Your task to perform on an android device: turn off priority inbox in the gmail app Image 0: 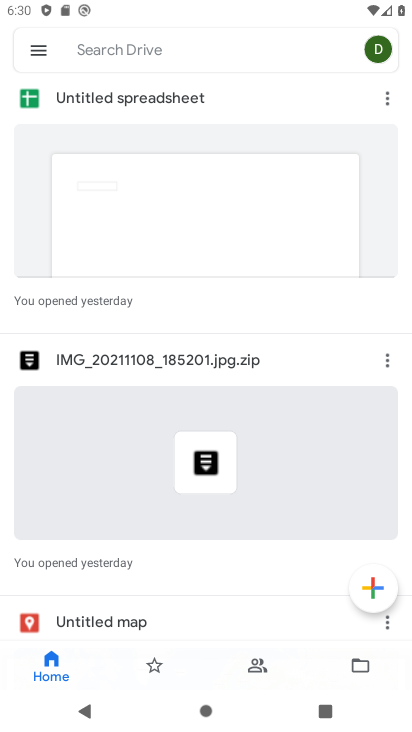
Step 0: press home button
Your task to perform on an android device: turn off priority inbox in the gmail app Image 1: 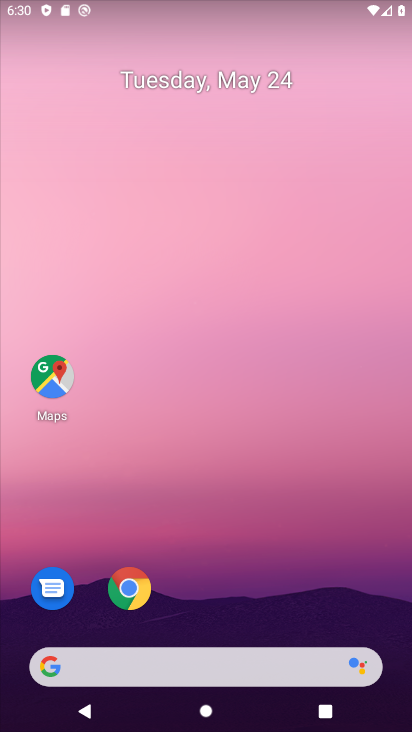
Step 1: drag from (264, 683) to (341, 38)
Your task to perform on an android device: turn off priority inbox in the gmail app Image 2: 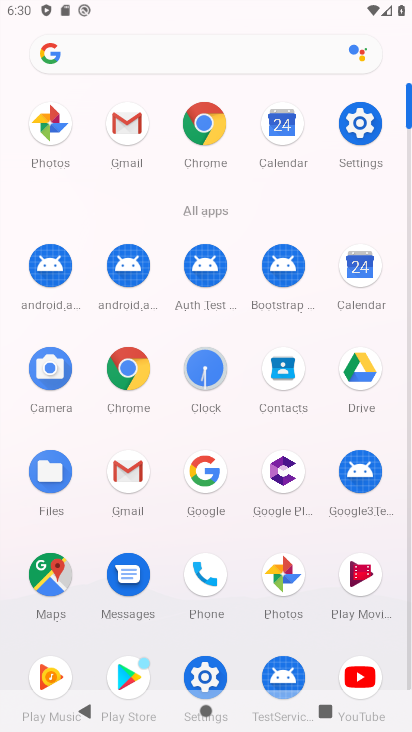
Step 2: click (126, 473)
Your task to perform on an android device: turn off priority inbox in the gmail app Image 3: 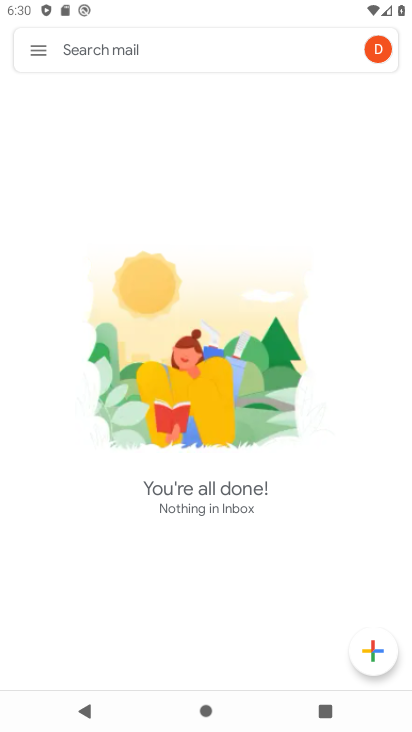
Step 3: click (23, 47)
Your task to perform on an android device: turn off priority inbox in the gmail app Image 4: 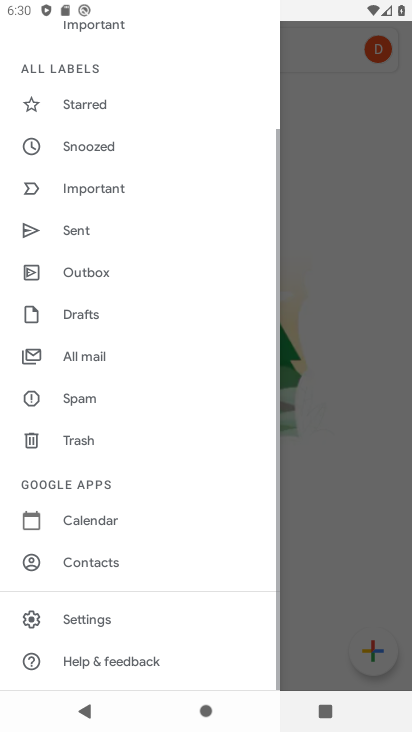
Step 4: click (90, 626)
Your task to perform on an android device: turn off priority inbox in the gmail app Image 5: 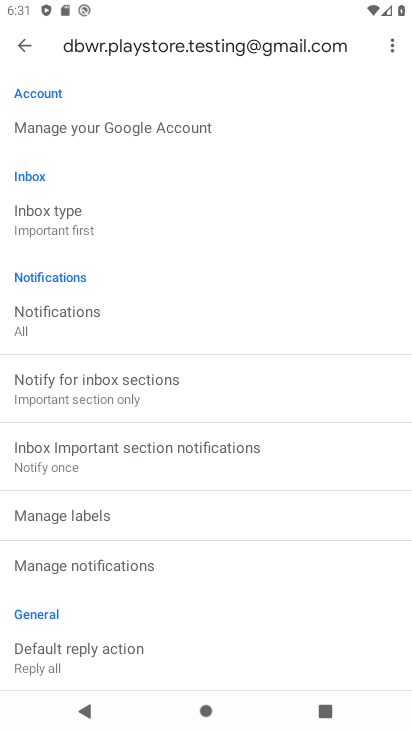
Step 5: click (64, 221)
Your task to perform on an android device: turn off priority inbox in the gmail app Image 6: 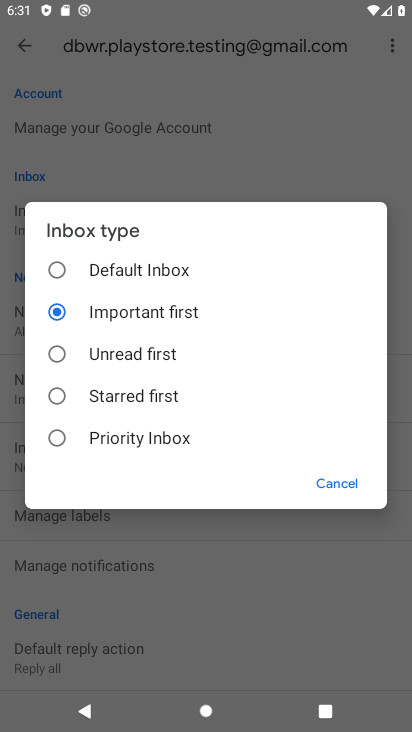
Step 6: task complete